Your task to perform on an android device: turn off notifications settings in the gmail app Image 0: 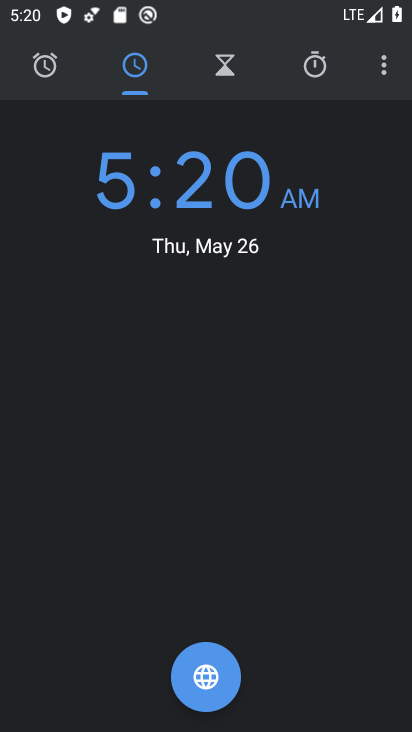
Step 0: press home button
Your task to perform on an android device: turn off notifications settings in the gmail app Image 1: 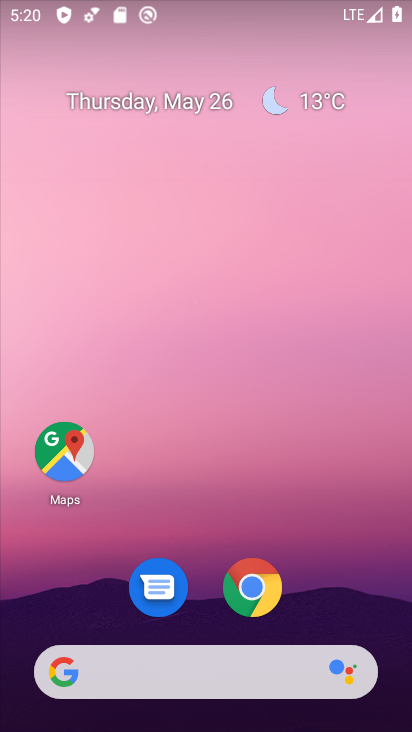
Step 1: drag from (231, 730) to (227, 89)
Your task to perform on an android device: turn off notifications settings in the gmail app Image 2: 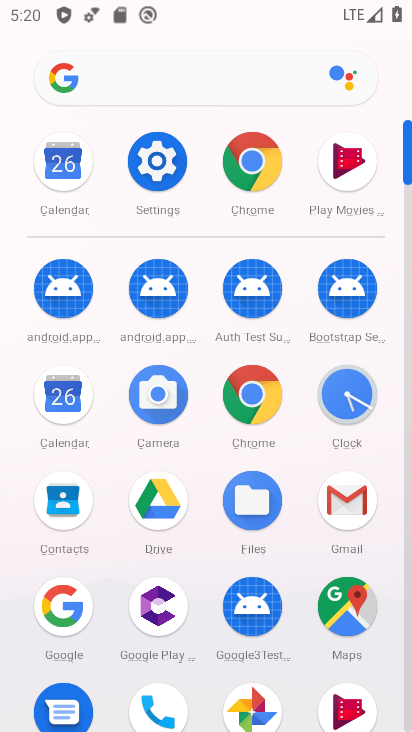
Step 2: click (340, 495)
Your task to perform on an android device: turn off notifications settings in the gmail app Image 3: 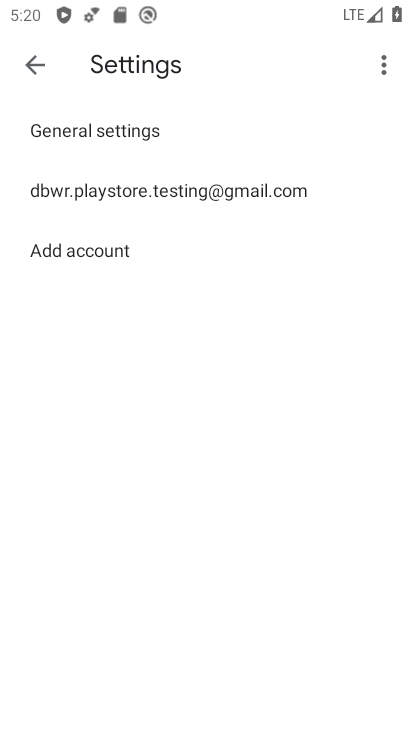
Step 3: click (166, 190)
Your task to perform on an android device: turn off notifications settings in the gmail app Image 4: 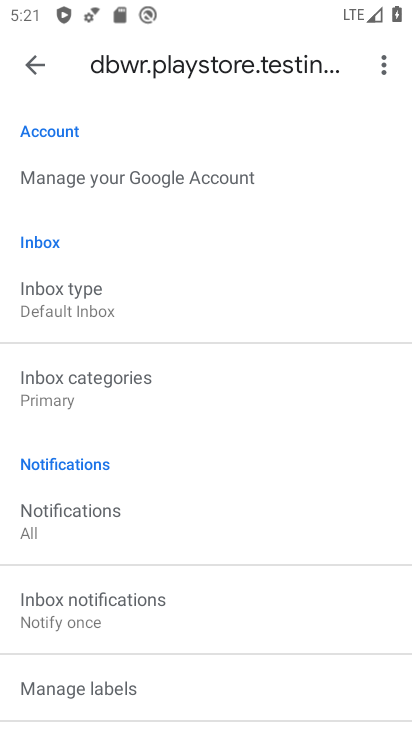
Step 4: click (86, 513)
Your task to perform on an android device: turn off notifications settings in the gmail app Image 5: 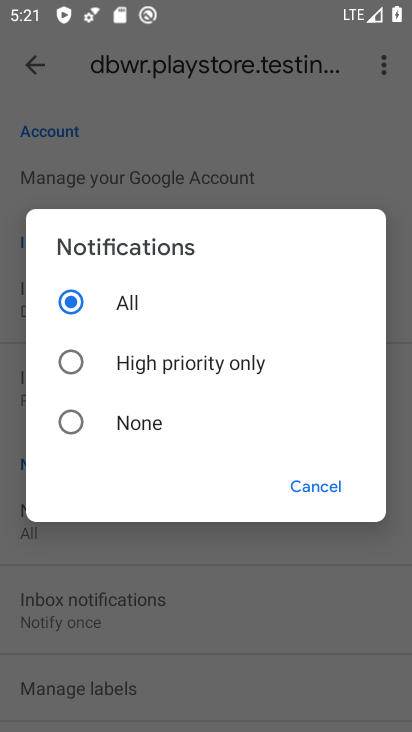
Step 5: click (72, 418)
Your task to perform on an android device: turn off notifications settings in the gmail app Image 6: 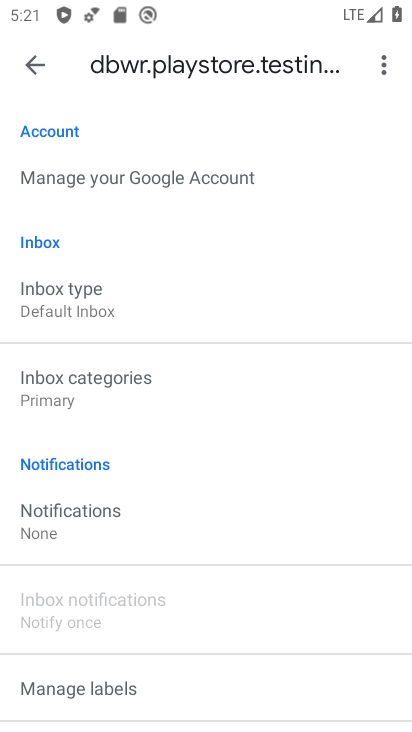
Step 6: task complete